Your task to perform on an android device: add a contact in the contacts app Image 0: 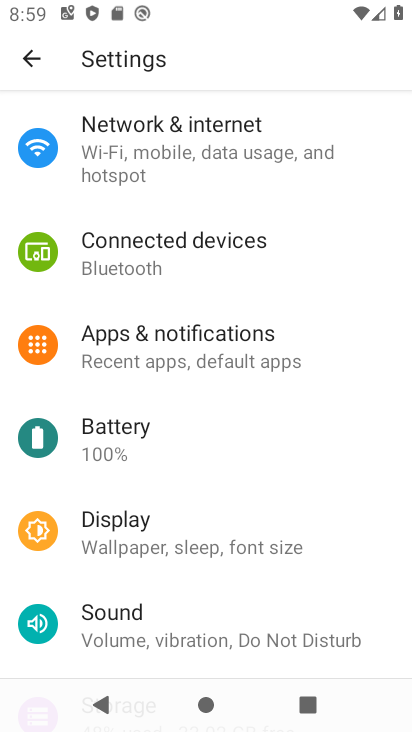
Step 0: press back button
Your task to perform on an android device: add a contact in the contacts app Image 1: 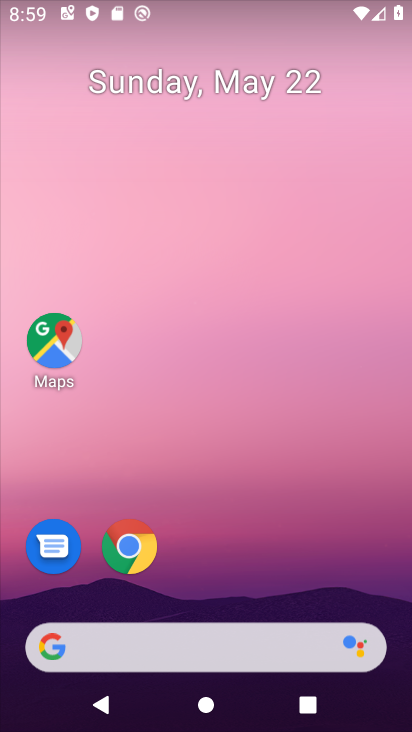
Step 1: drag from (238, 553) to (302, 105)
Your task to perform on an android device: add a contact in the contacts app Image 2: 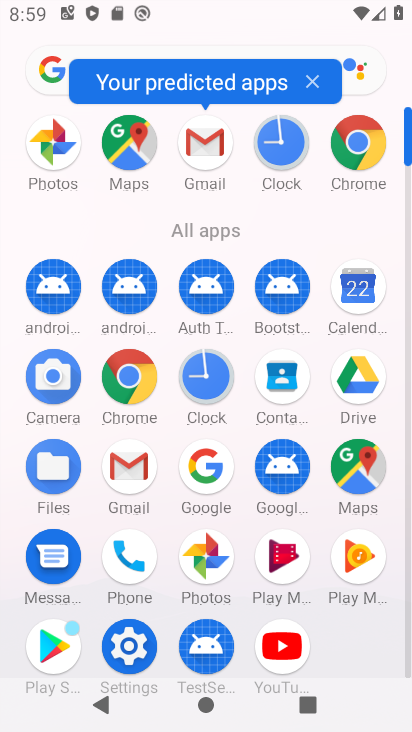
Step 2: click (292, 382)
Your task to perform on an android device: add a contact in the contacts app Image 3: 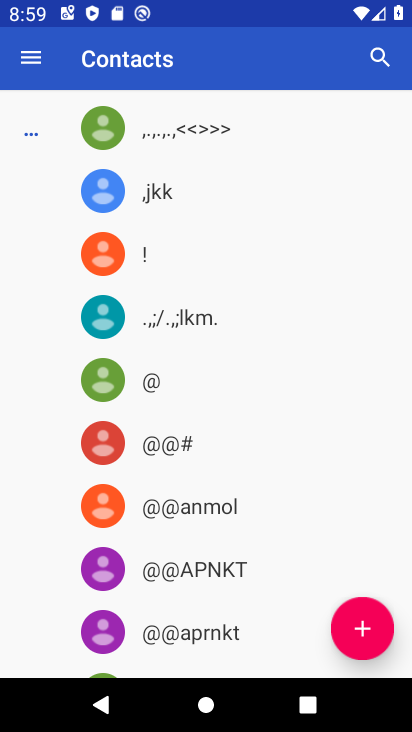
Step 3: click (380, 613)
Your task to perform on an android device: add a contact in the contacts app Image 4: 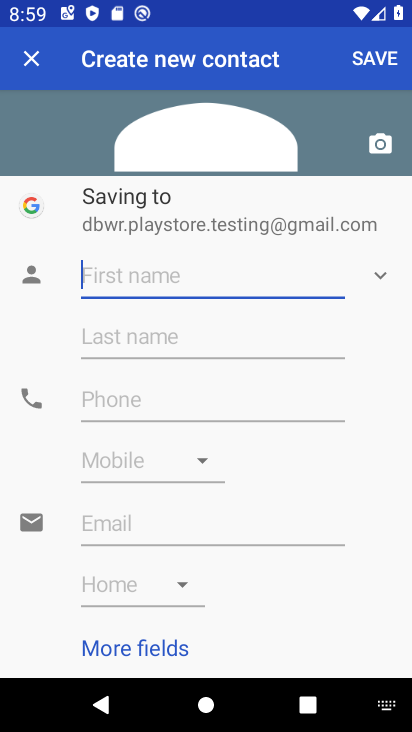
Step 4: type "bvgvhj"
Your task to perform on an android device: add a contact in the contacts app Image 5: 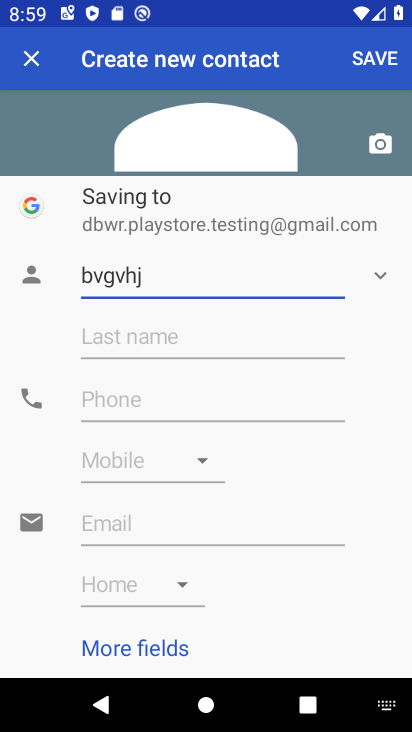
Step 5: click (133, 402)
Your task to perform on an android device: add a contact in the contacts app Image 6: 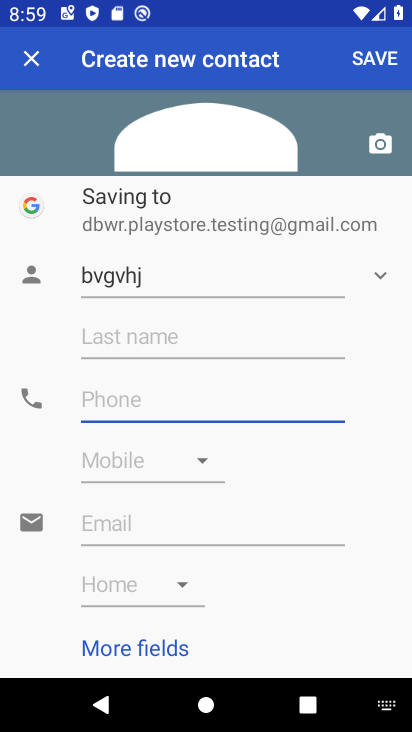
Step 6: type "9797"
Your task to perform on an android device: add a contact in the contacts app Image 7: 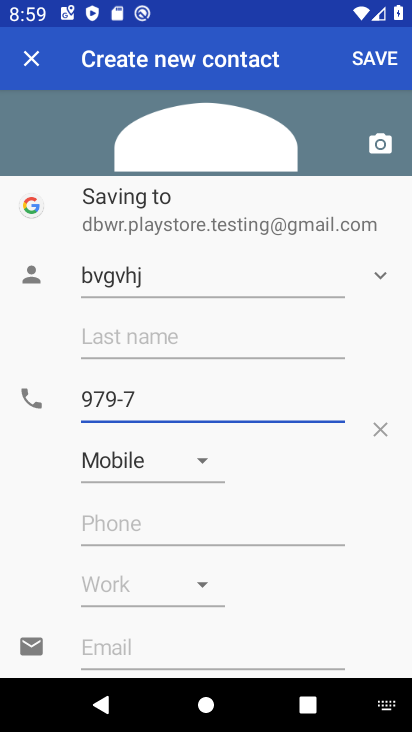
Step 7: click (359, 57)
Your task to perform on an android device: add a contact in the contacts app Image 8: 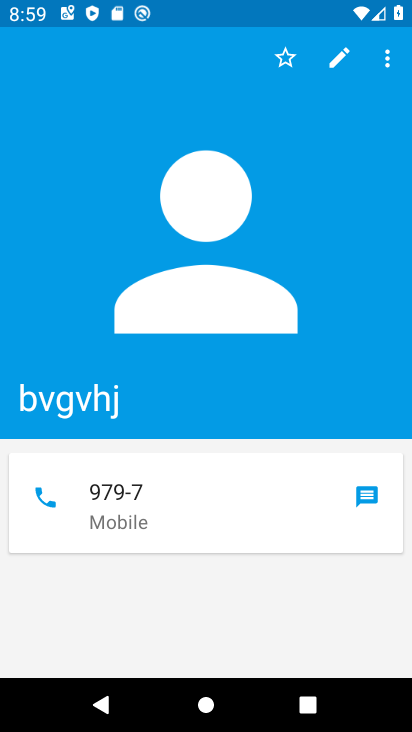
Step 8: task complete